Your task to perform on an android device: turn off location Image 0: 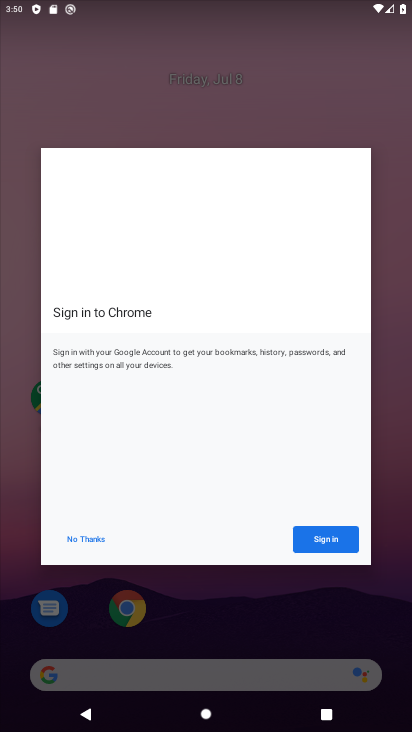
Step 0: press home button
Your task to perform on an android device: turn off location Image 1: 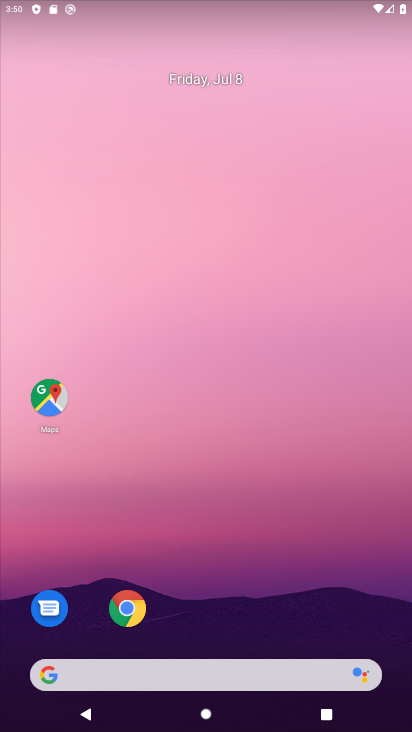
Step 1: drag from (275, 605) to (252, 42)
Your task to perform on an android device: turn off location Image 2: 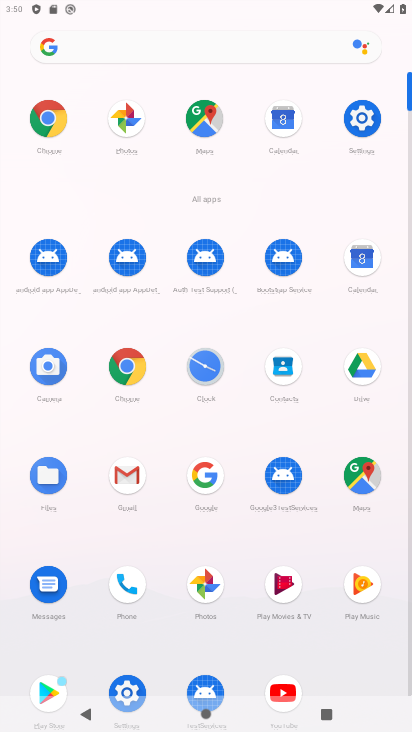
Step 2: drag from (240, 540) to (219, 171)
Your task to perform on an android device: turn off location Image 3: 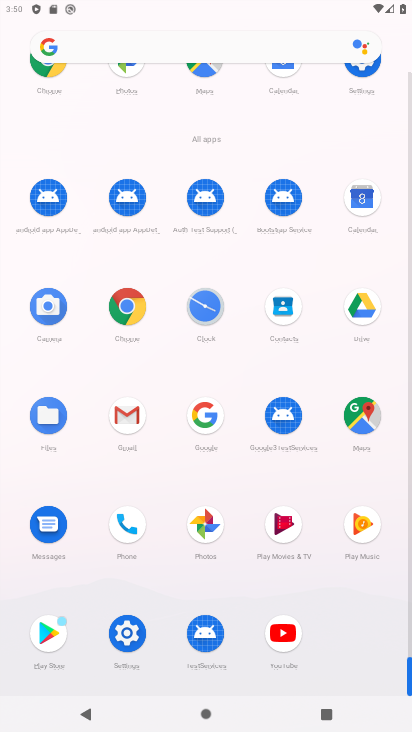
Step 3: click (121, 627)
Your task to perform on an android device: turn off location Image 4: 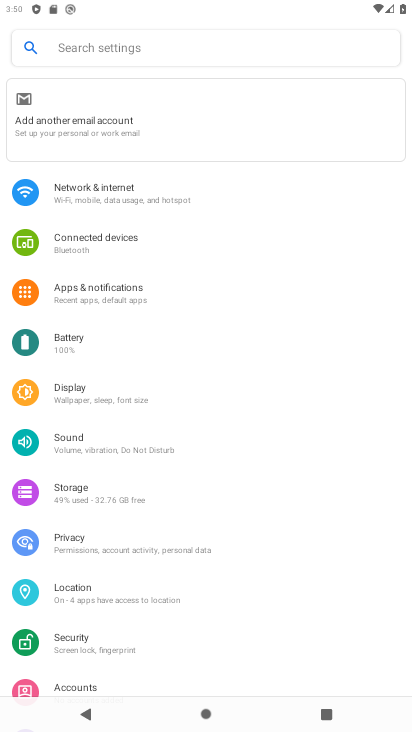
Step 4: drag from (151, 603) to (203, 318)
Your task to perform on an android device: turn off location Image 5: 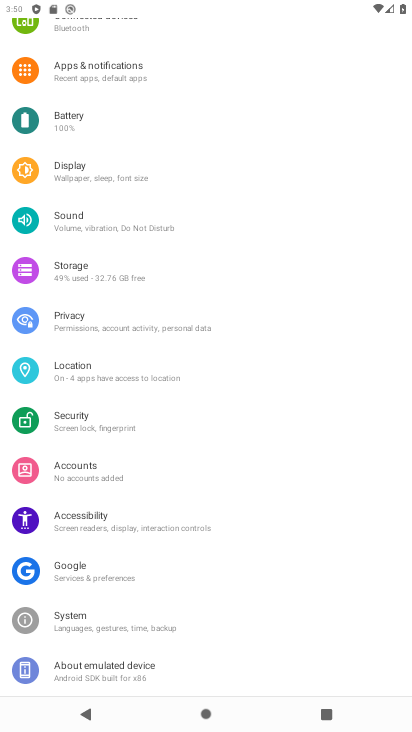
Step 5: click (70, 373)
Your task to perform on an android device: turn off location Image 6: 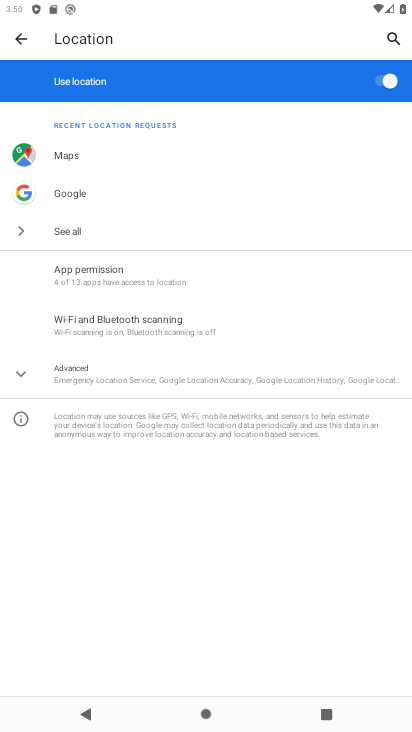
Step 6: click (378, 81)
Your task to perform on an android device: turn off location Image 7: 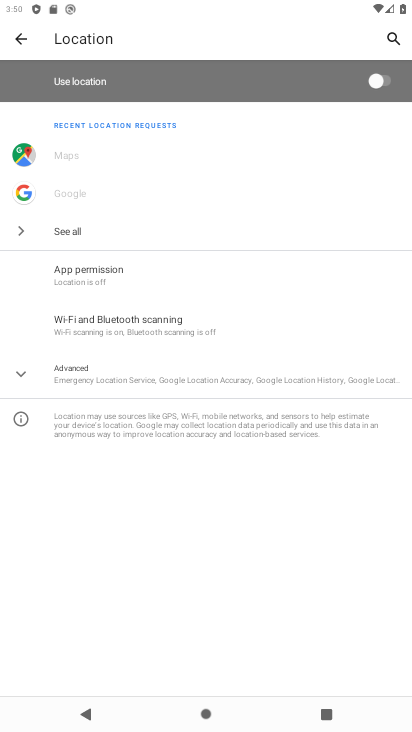
Step 7: task complete